Your task to perform on an android device: Show me popular videos on Youtube Image 0: 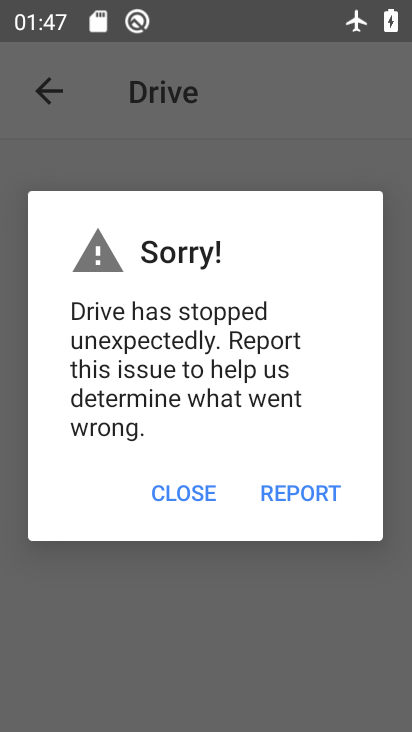
Step 0: press home button
Your task to perform on an android device: Show me popular videos on Youtube Image 1: 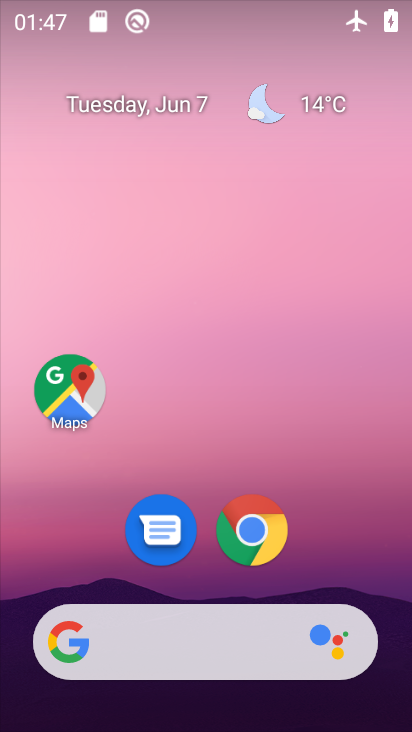
Step 1: drag from (209, 582) to (207, 201)
Your task to perform on an android device: Show me popular videos on Youtube Image 2: 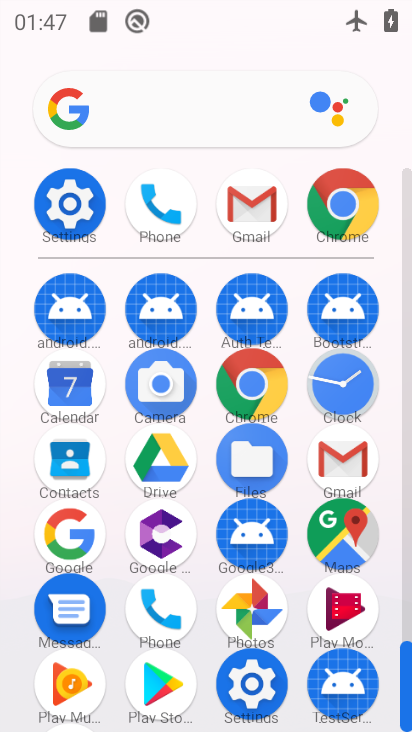
Step 2: drag from (280, 626) to (281, 395)
Your task to perform on an android device: Show me popular videos on Youtube Image 3: 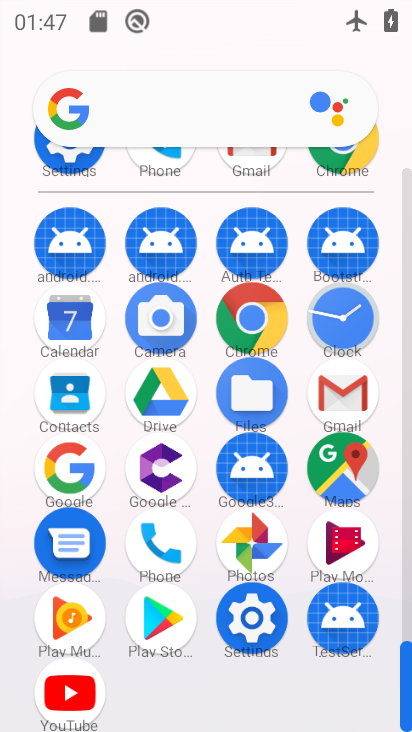
Step 3: click (49, 692)
Your task to perform on an android device: Show me popular videos on Youtube Image 4: 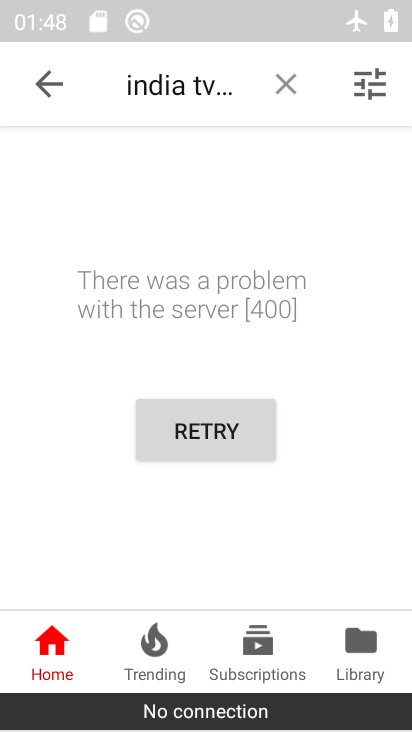
Step 4: task complete